Your task to perform on an android device: turn off data saver in the chrome app Image 0: 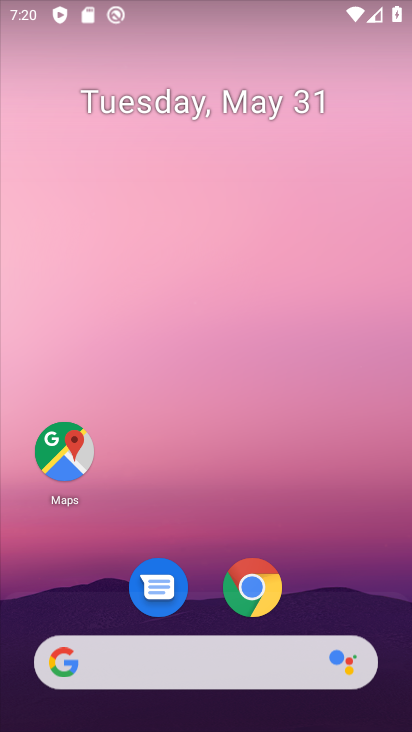
Step 0: click (221, 667)
Your task to perform on an android device: turn off data saver in the chrome app Image 1: 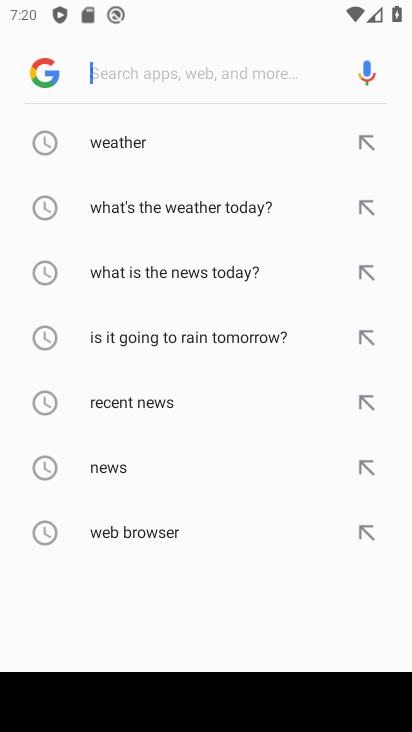
Step 1: press home button
Your task to perform on an android device: turn off data saver in the chrome app Image 2: 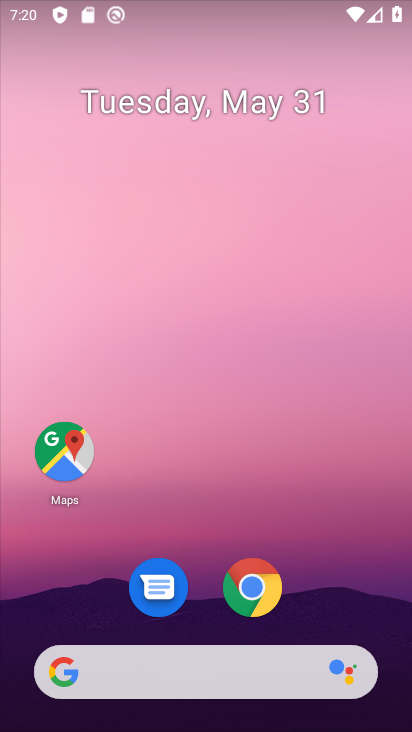
Step 2: click (255, 591)
Your task to perform on an android device: turn off data saver in the chrome app Image 3: 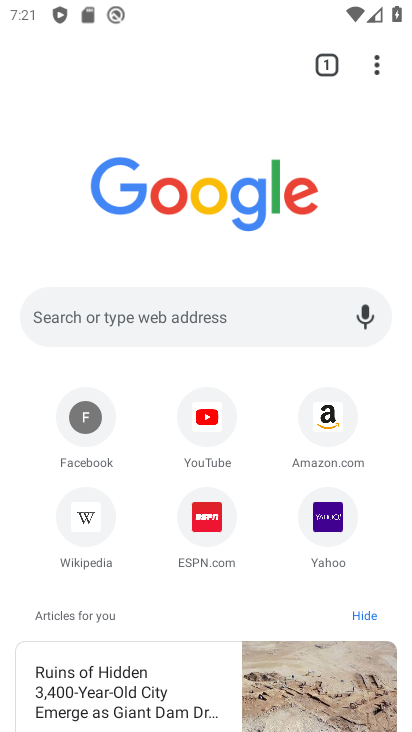
Step 3: click (376, 65)
Your task to perform on an android device: turn off data saver in the chrome app Image 4: 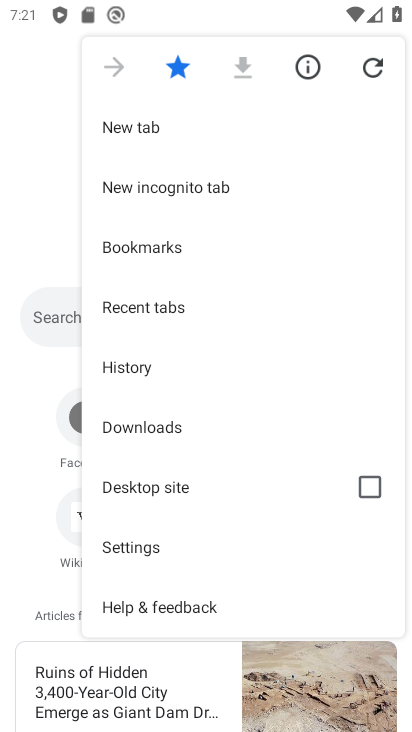
Step 4: click (142, 547)
Your task to perform on an android device: turn off data saver in the chrome app Image 5: 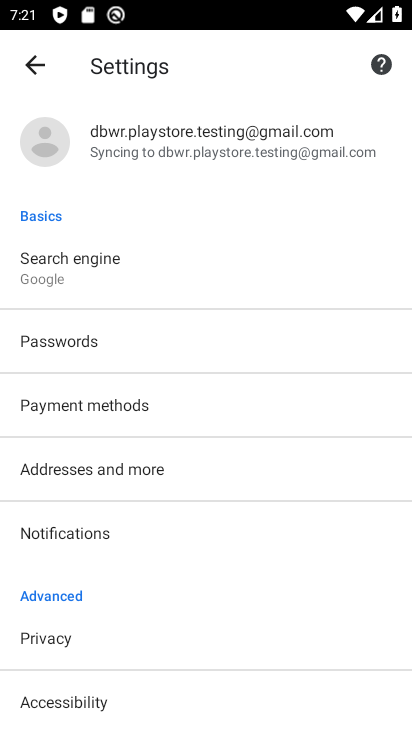
Step 5: drag from (126, 678) to (156, 223)
Your task to perform on an android device: turn off data saver in the chrome app Image 6: 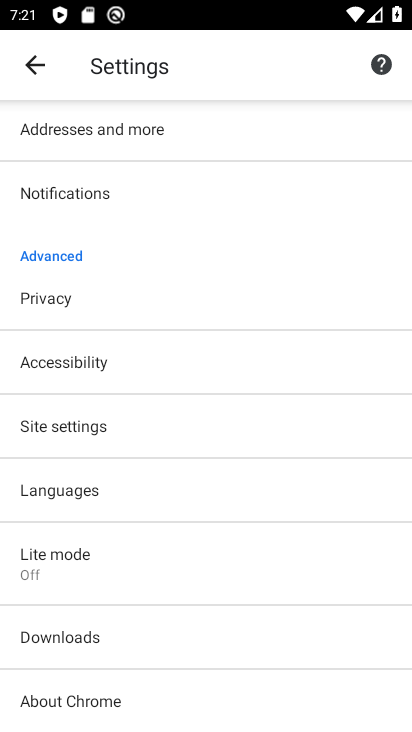
Step 6: click (41, 568)
Your task to perform on an android device: turn off data saver in the chrome app Image 7: 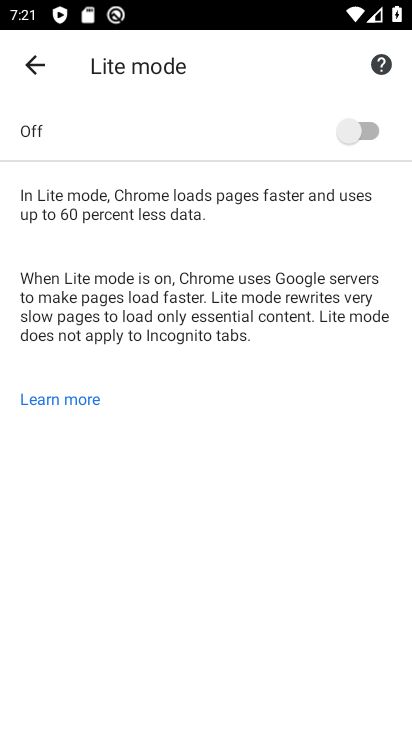
Step 7: task complete